Your task to perform on an android device: Go to sound settings Image 0: 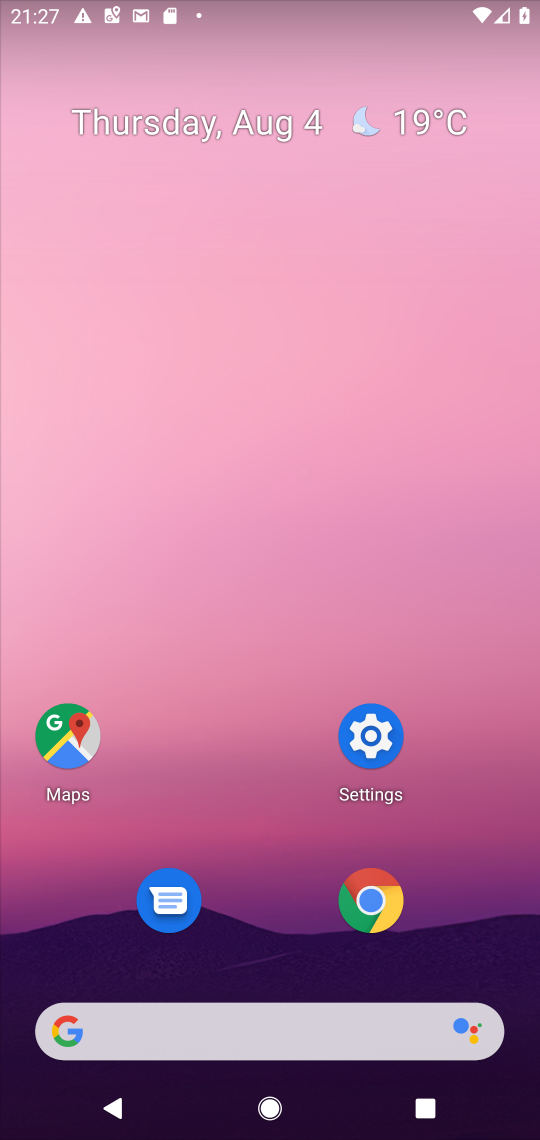
Step 0: press home button
Your task to perform on an android device: Go to sound settings Image 1: 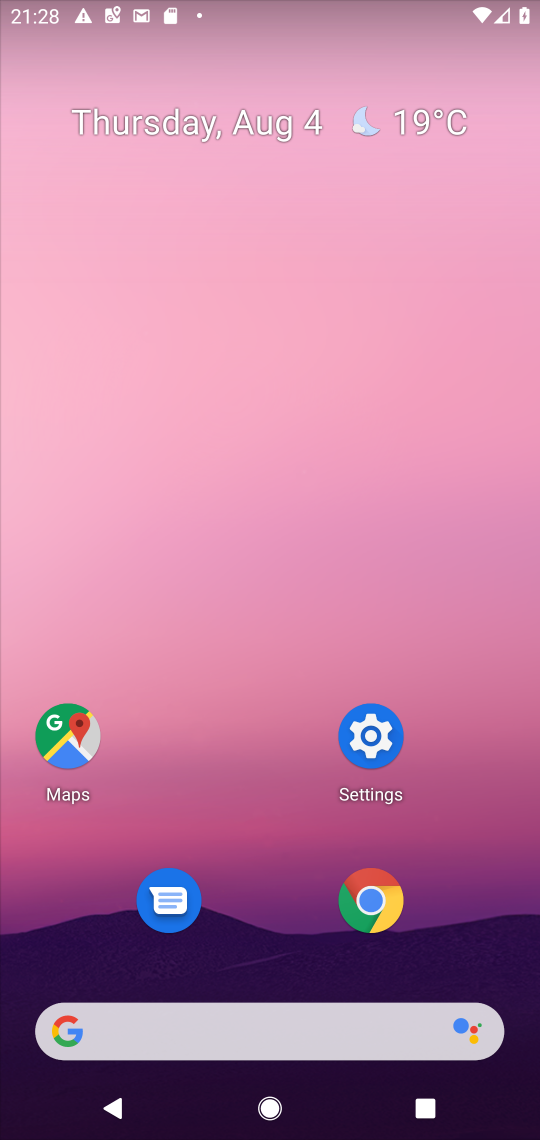
Step 1: click (371, 735)
Your task to perform on an android device: Go to sound settings Image 2: 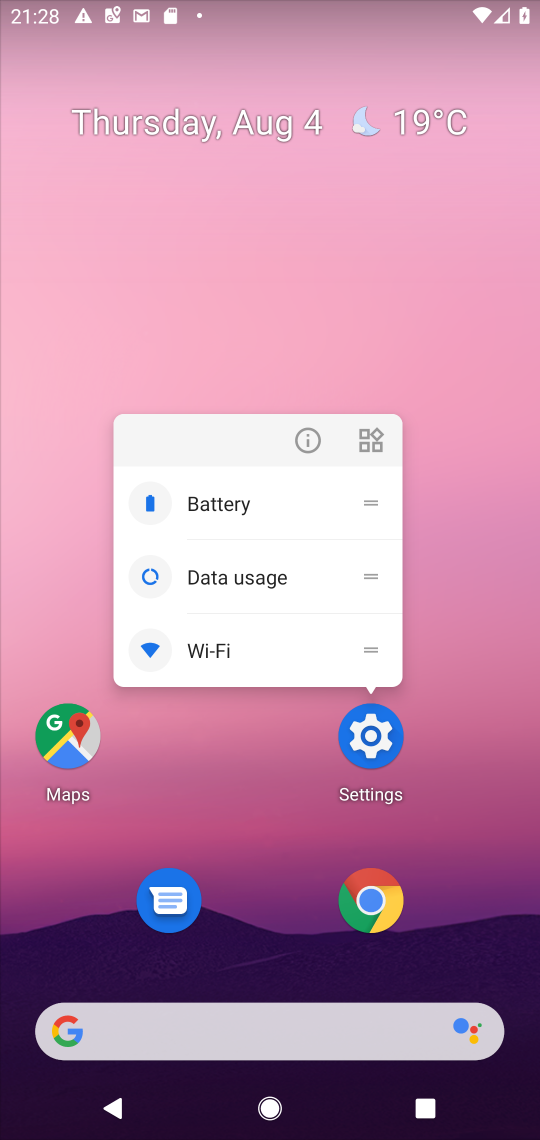
Step 2: click (371, 734)
Your task to perform on an android device: Go to sound settings Image 3: 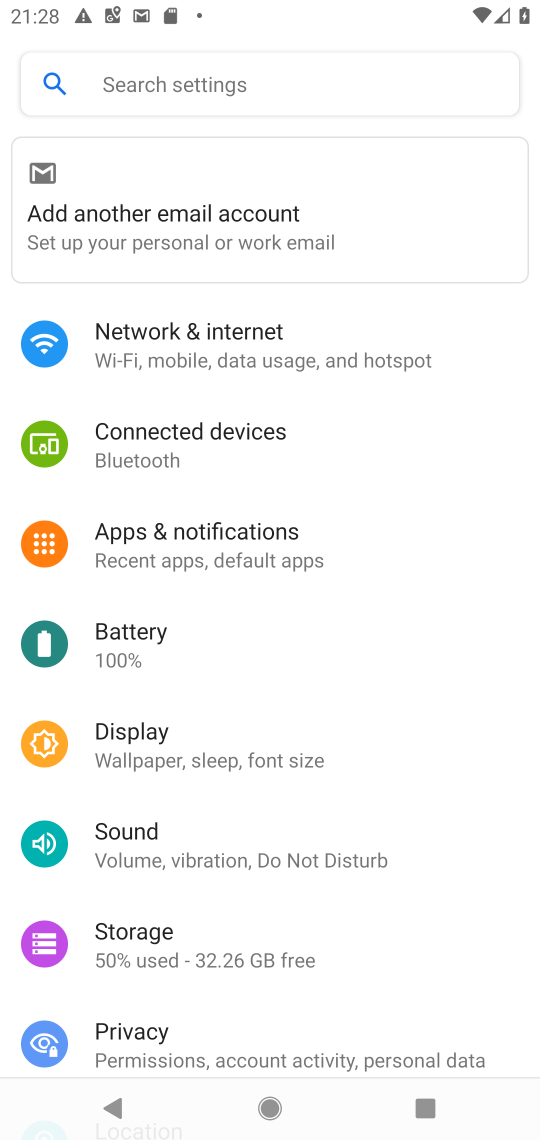
Step 3: click (143, 837)
Your task to perform on an android device: Go to sound settings Image 4: 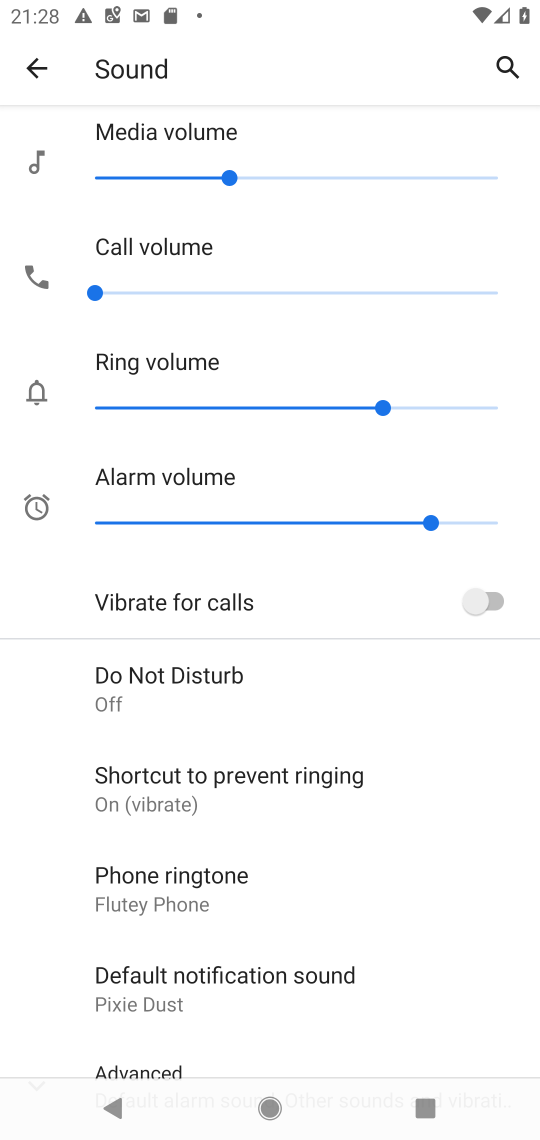
Step 4: task complete